Your task to perform on an android device: Open network settings Image 0: 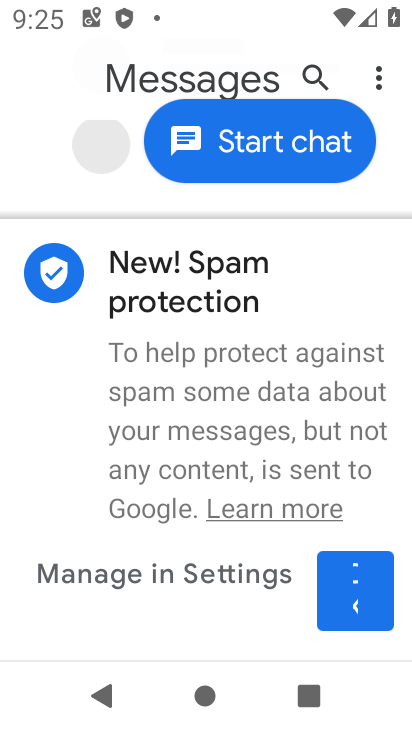
Step 0: press home button
Your task to perform on an android device: Open network settings Image 1: 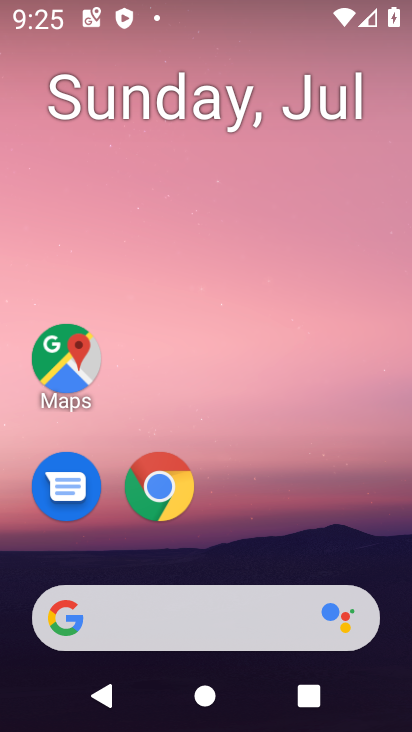
Step 1: drag from (373, 534) to (352, 87)
Your task to perform on an android device: Open network settings Image 2: 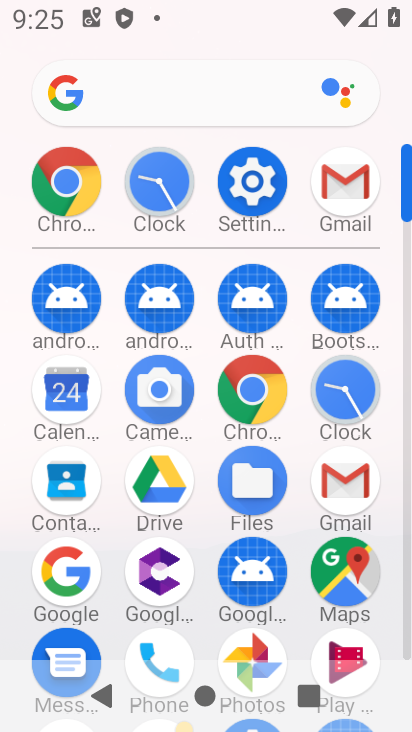
Step 2: click (252, 183)
Your task to perform on an android device: Open network settings Image 3: 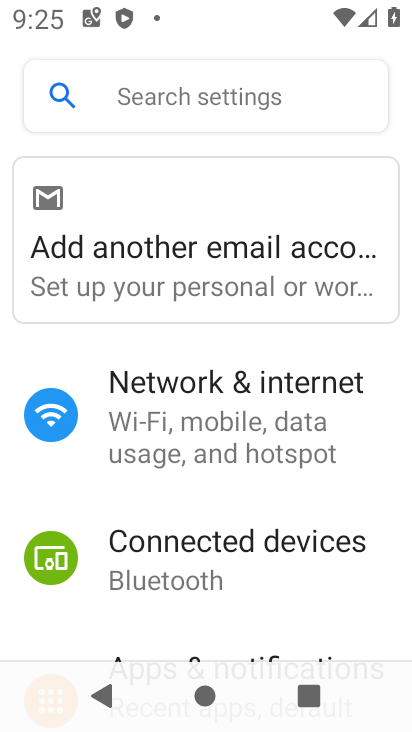
Step 3: drag from (378, 516) to (368, 406)
Your task to perform on an android device: Open network settings Image 4: 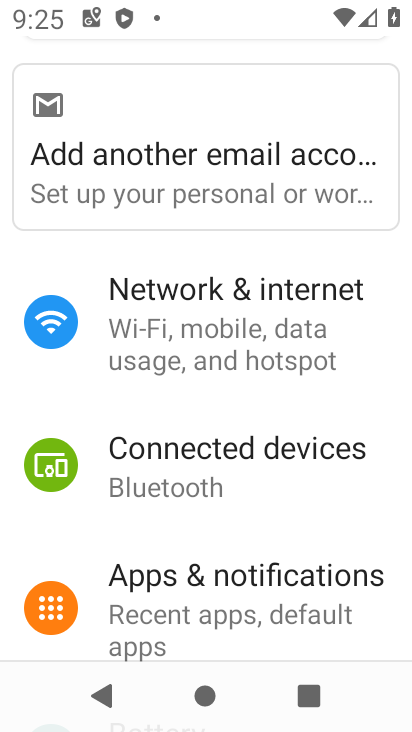
Step 4: drag from (367, 537) to (367, 416)
Your task to perform on an android device: Open network settings Image 5: 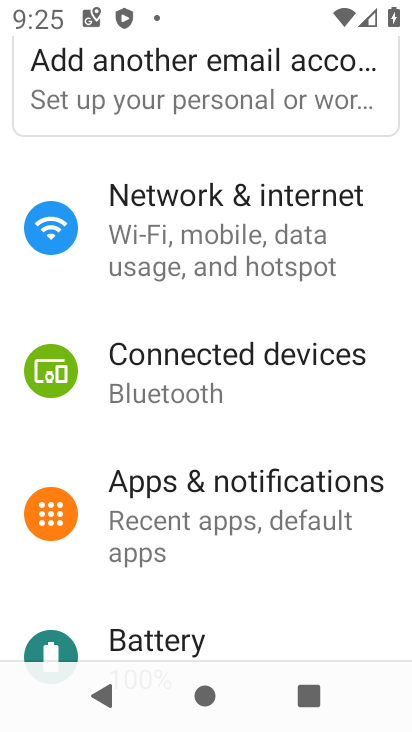
Step 5: drag from (369, 571) to (370, 453)
Your task to perform on an android device: Open network settings Image 6: 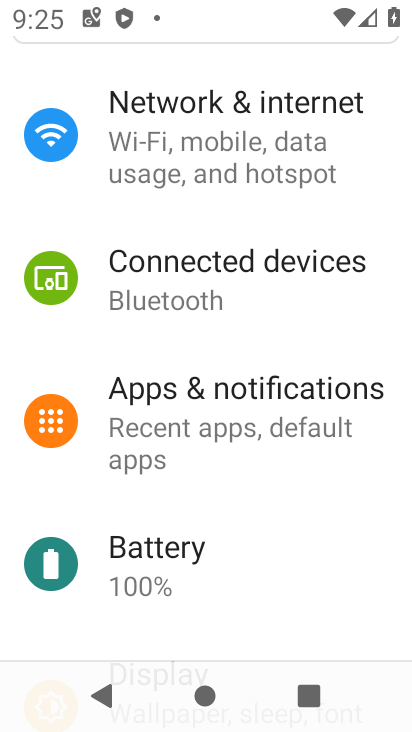
Step 6: drag from (362, 566) to (358, 482)
Your task to perform on an android device: Open network settings Image 7: 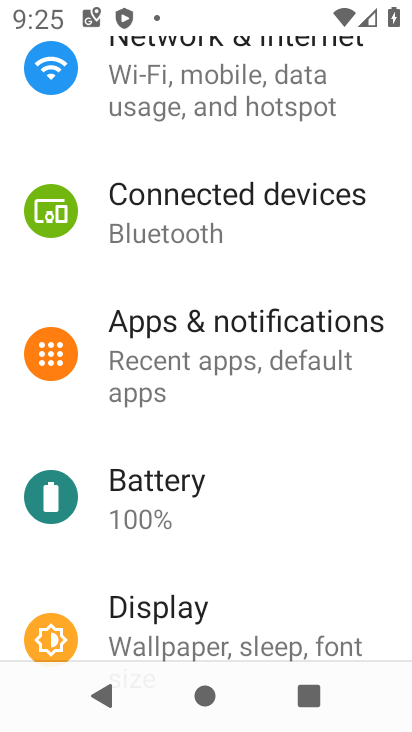
Step 7: drag from (351, 574) to (345, 479)
Your task to perform on an android device: Open network settings Image 8: 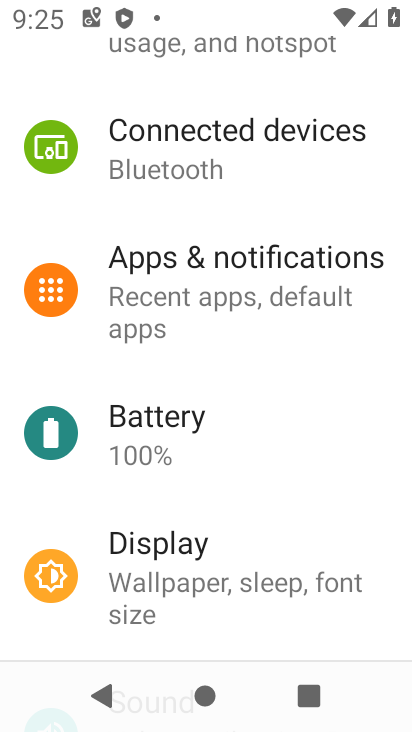
Step 8: drag from (356, 616) to (363, 447)
Your task to perform on an android device: Open network settings Image 9: 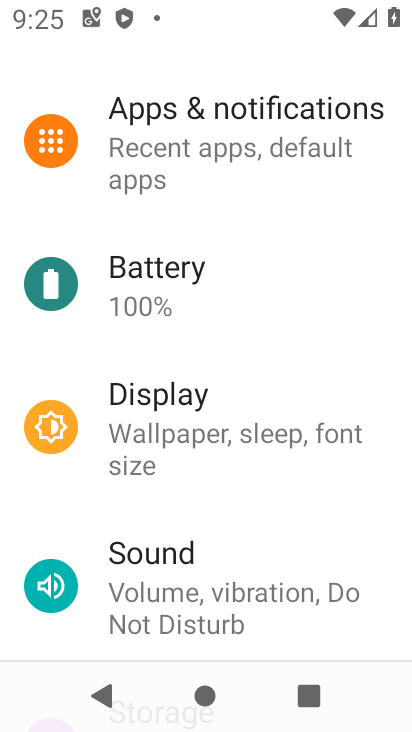
Step 9: drag from (354, 254) to (357, 356)
Your task to perform on an android device: Open network settings Image 10: 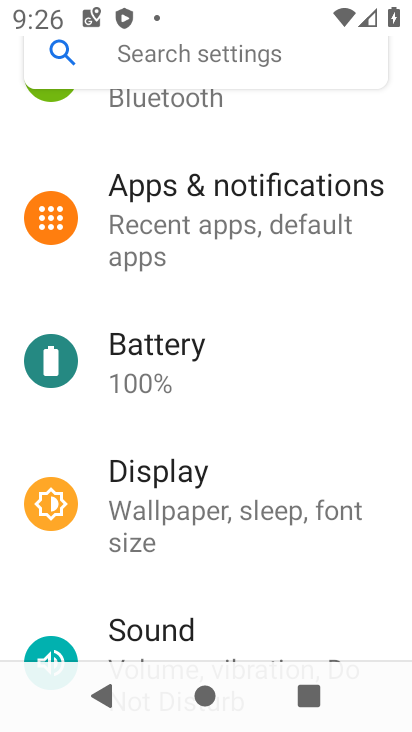
Step 10: drag from (374, 226) to (378, 339)
Your task to perform on an android device: Open network settings Image 11: 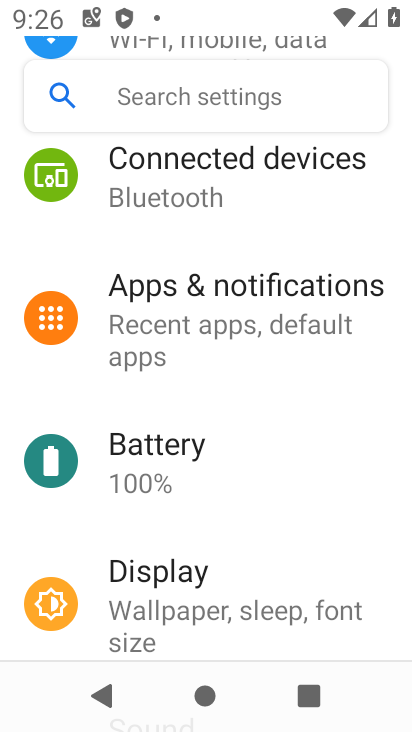
Step 11: drag from (365, 177) to (361, 334)
Your task to perform on an android device: Open network settings Image 12: 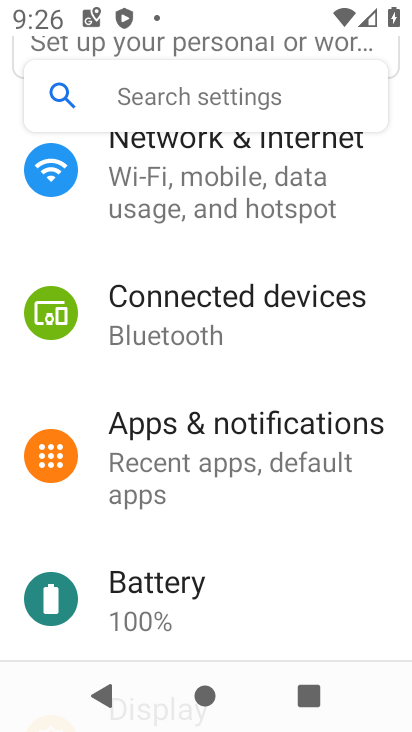
Step 12: drag from (372, 173) to (373, 308)
Your task to perform on an android device: Open network settings Image 13: 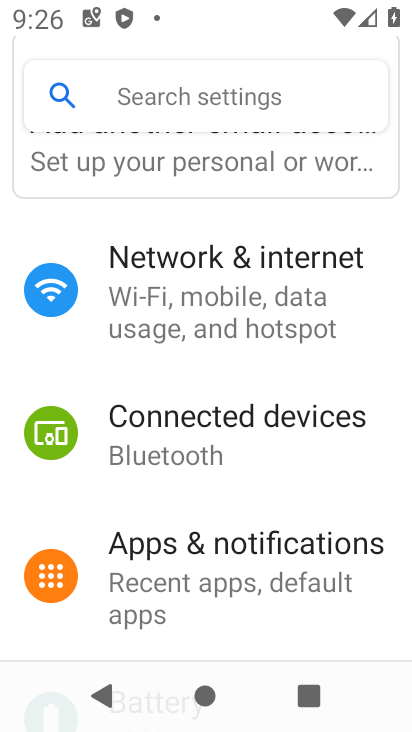
Step 13: click (270, 301)
Your task to perform on an android device: Open network settings Image 14: 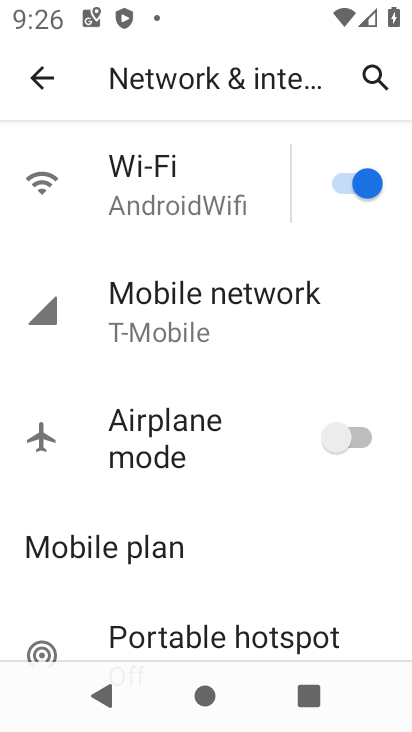
Step 14: task complete